Your task to perform on an android device: turn off javascript in the chrome app Image 0: 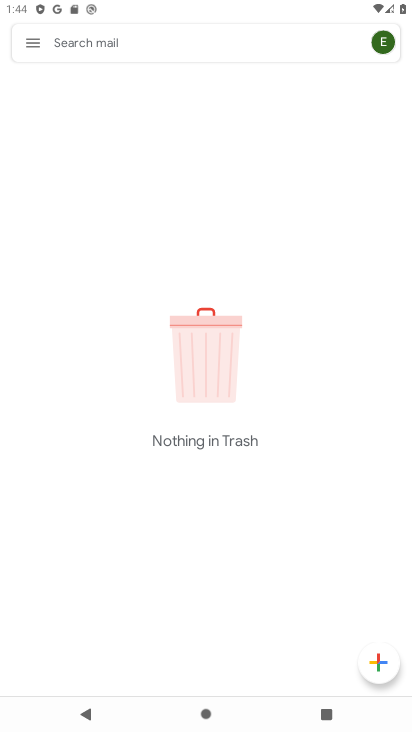
Step 0: press home button
Your task to perform on an android device: turn off javascript in the chrome app Image 1: 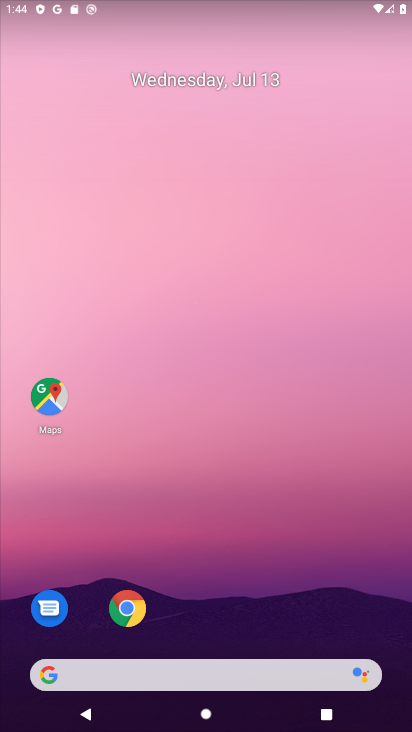
Step 1: click (128, 608)
Your task to perform on an android device: turn off javascript in the chrome app Image 2: 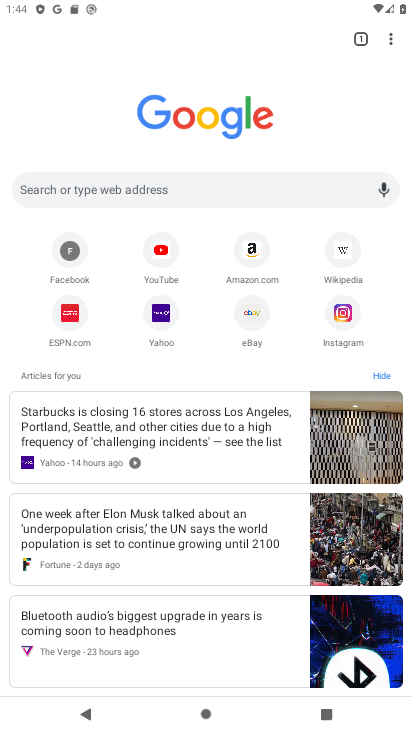
Step 2: click (397, 52)
Your task to perform on an android device: turn off javascript in the chrome app Image 3: 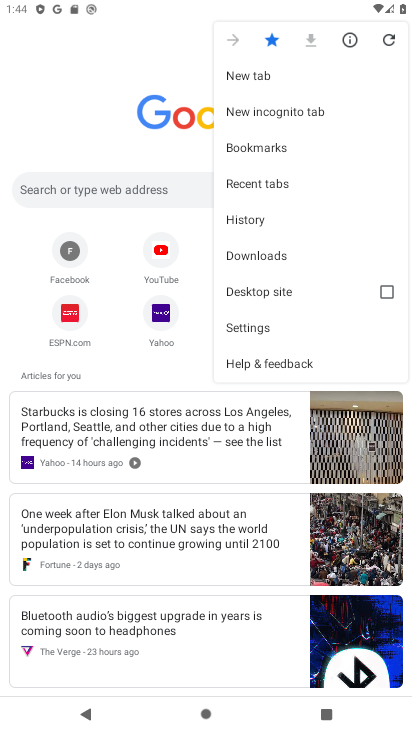
Step 3: click (238, 334)
Your task to perform on an android device: turn off javascript in the chrome app Image 4: 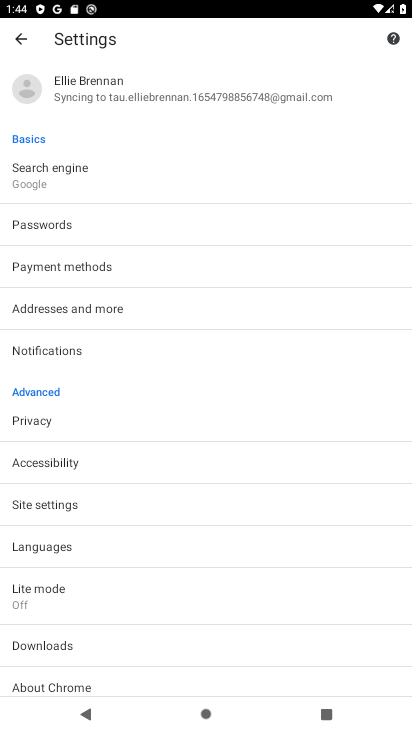
Step 4: click (141, 502)
Your task to perform on an android device: turn off javascript in the chrome app Image 5: 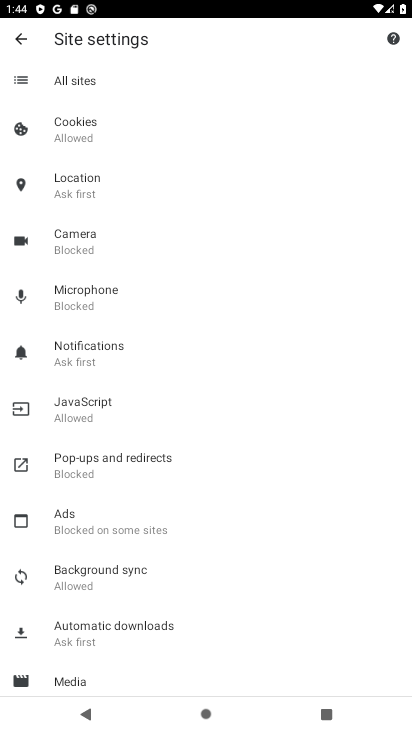
Step 5: click (99, 430)
Your task to perform on an android device: turn off javascript in the chrome app Image 6: 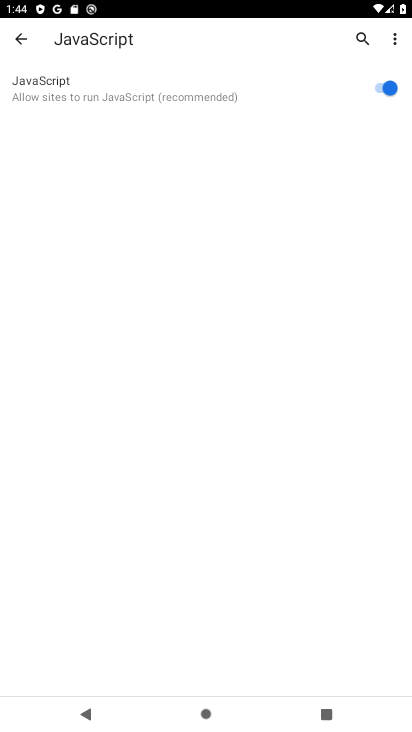
Step 6: click (384, 88)
Your task to perform on an android device: turn off javascript in the chrome app Image 7: 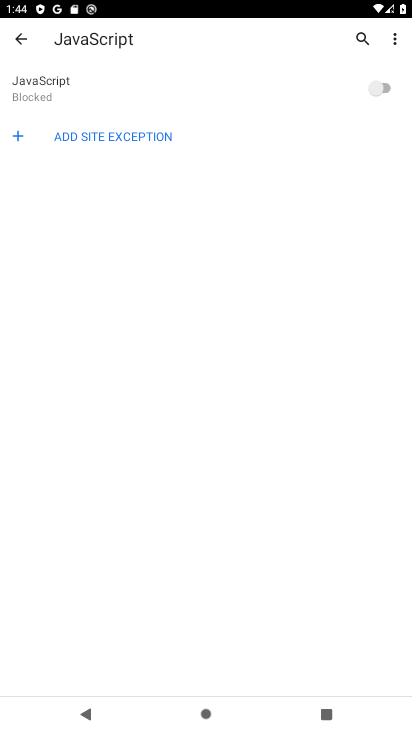
Step 7: task complete